Your task to perform on an android device: turn on notifications settings in the gmail app Image 0: 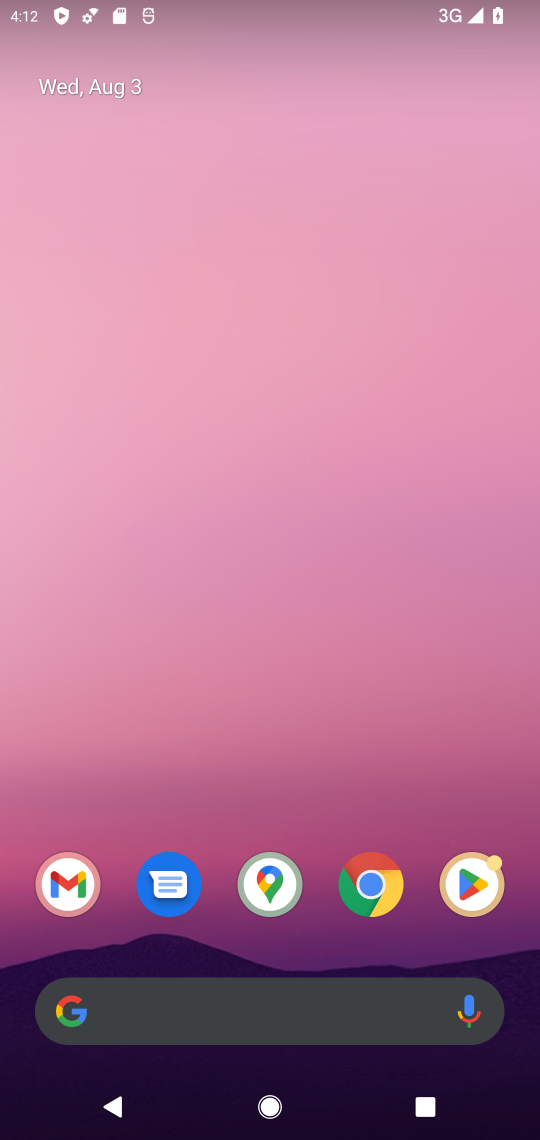
Step 0: drag from (210, 936) to (223, 326)
Your task to perform on an android device: turn on notifications settings in the gmail app Image 1: 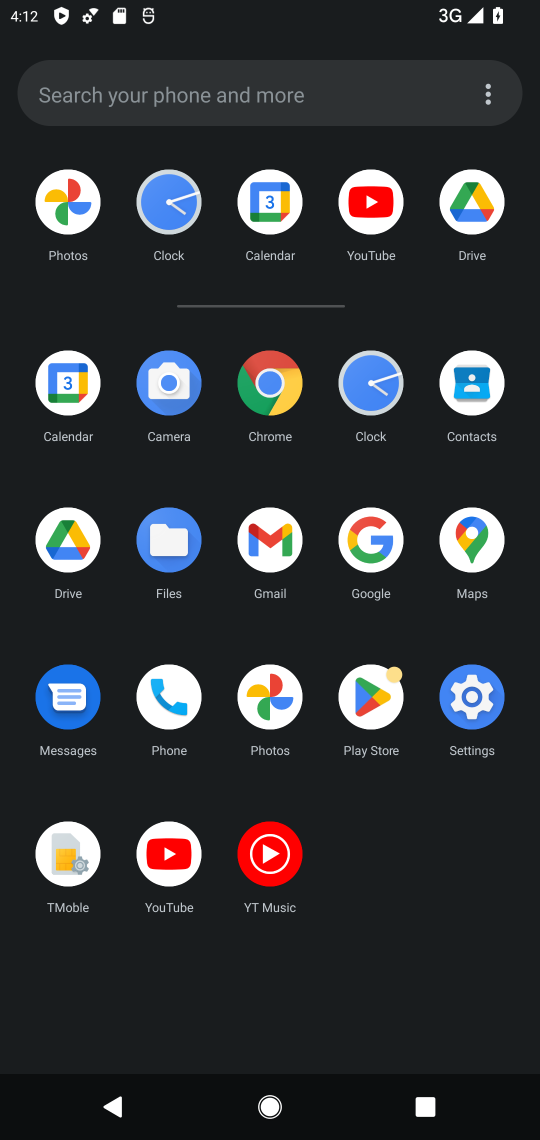
Step 1: click (489, 712)
Your task to perform on an android device: turn on notifications settings in the gmail app Image 2: 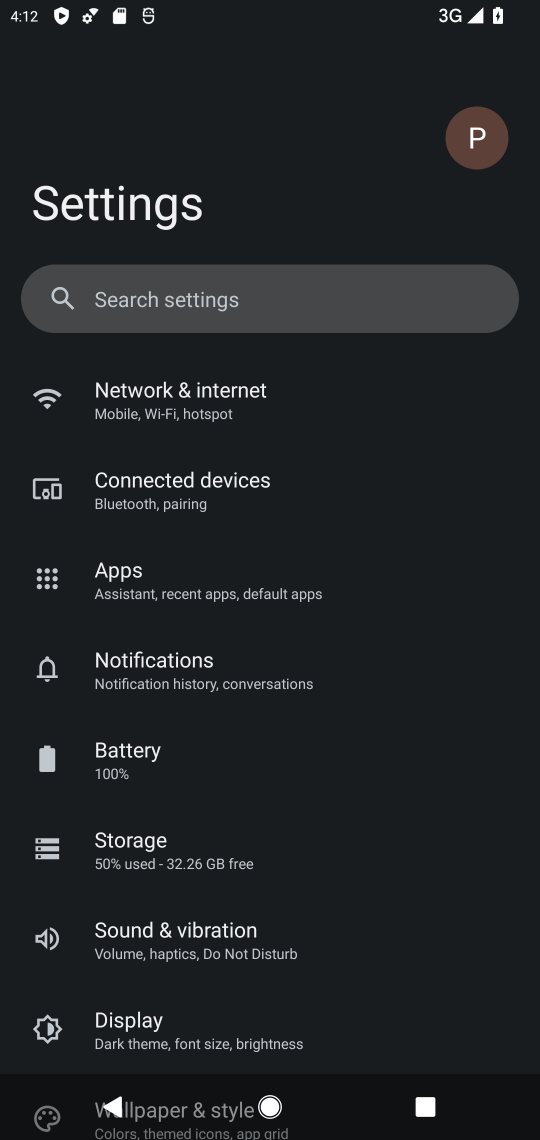
Step 2: click (198, 673)
Your task to perform on an android device: turn on notifications settings in the gmail app Image 3: 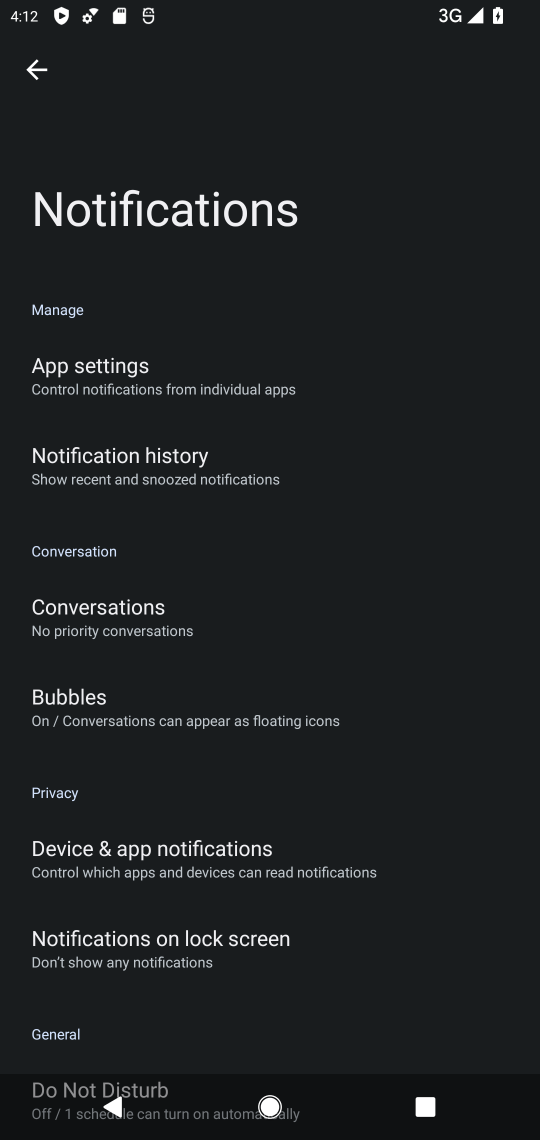
Step 3: click (139, 476)
Your task to perform on an android device: turn on notifications settings in the gmail app Image 4: 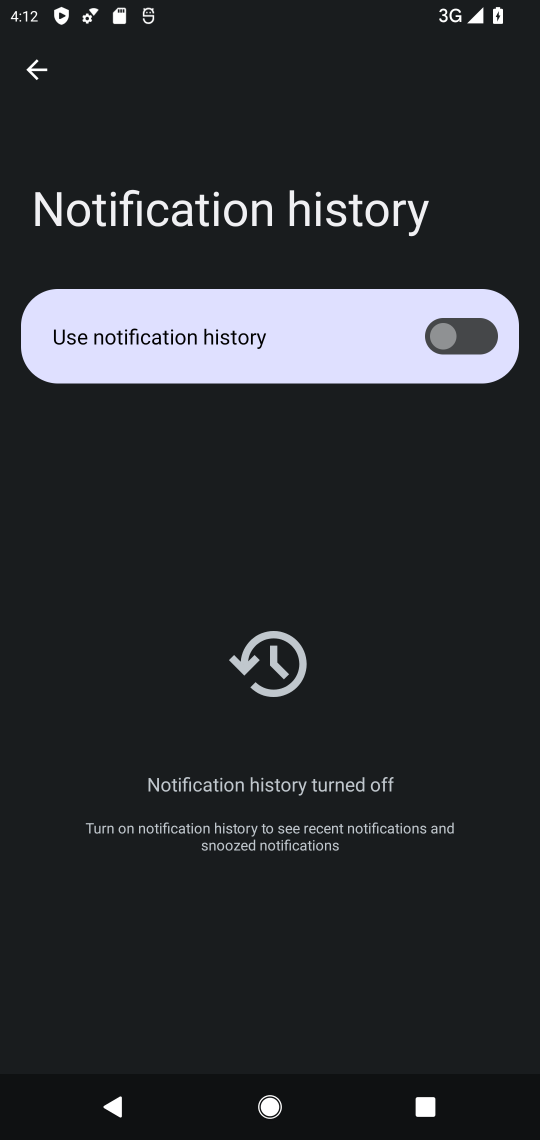
Step 4: task complete